Your task to perform on an android device: turn on showing notifications on the lock screen Image 0: 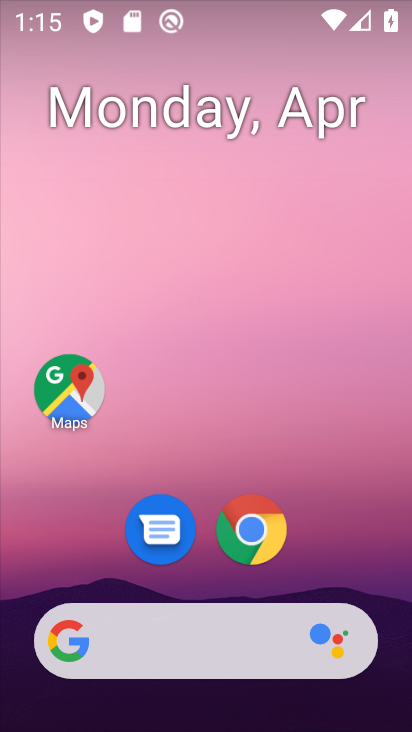
Step 0: drag from (317, 531) to (310, 152)
Your task to perform on an android device: turn on showing notifications on the lock screen Image 1: 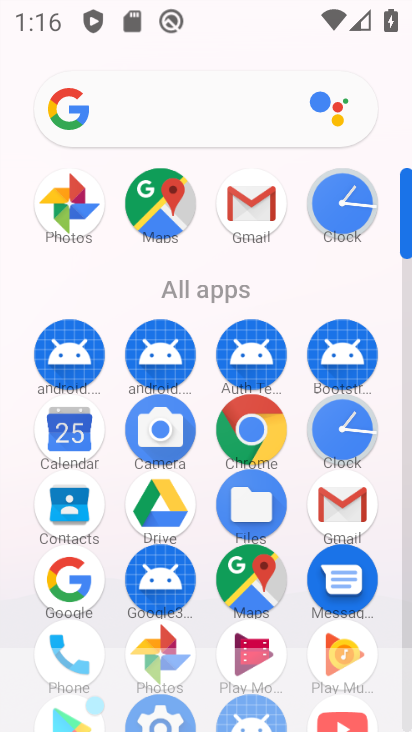
Step 1: drag from (208, 620) to (275, 161)
Your task to perform on an android device: turn on showing notifications on the lock screen Image 2: 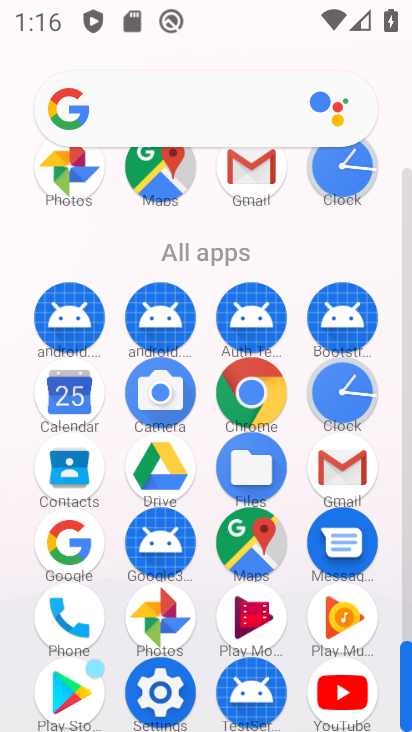
Step 2: click (163, 685)
Your task to perform on an android device: turn on showing notifications on the lock screen Image 3: 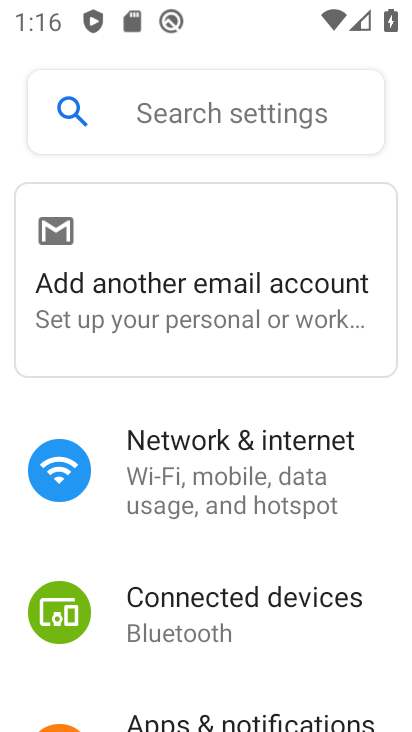
Step 3: drag from (224, 640) to (260, 391)
Your task to perform on an android device: turn on showing notifications on the lock screen Image 4: 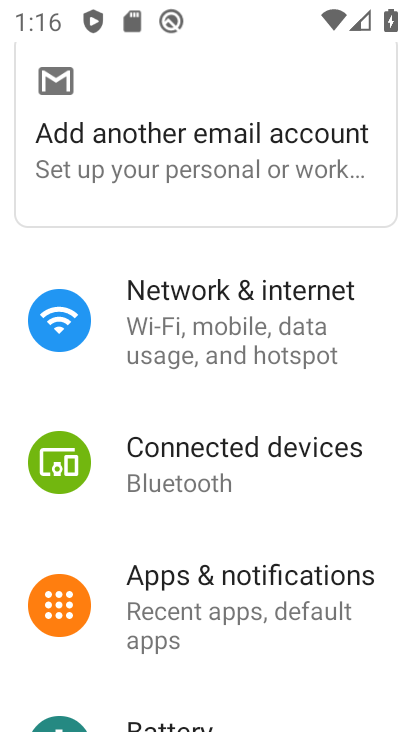
Step 4: click (172, 603)
Your task to perform on an android device: turn on showing notifications on the lock screen Image 5: 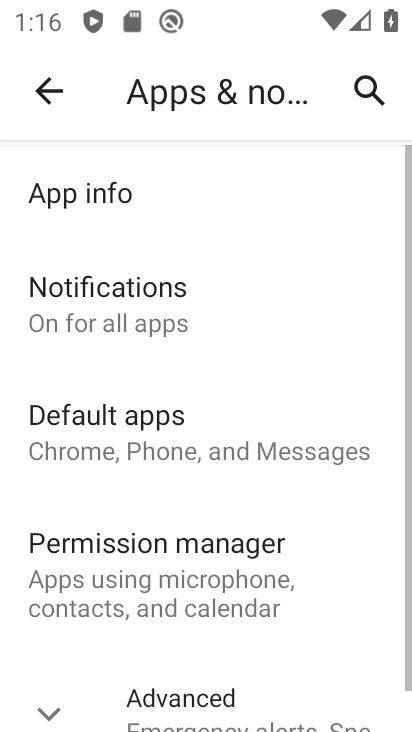
Step 5: drag from (206, 602) to (263, 332)
Your task to perform on an android device: turn on showing notifications on the lock screen Image 6: 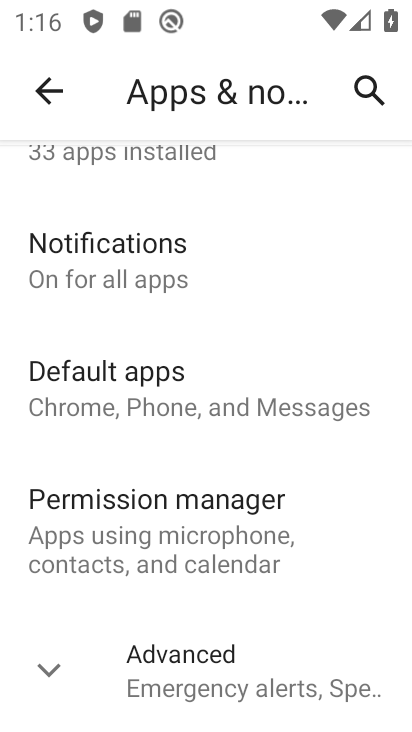
Step 6: drag from (183, 273) to (175, 500)
Your task to perform on an android device: turn on showing notifications on the lock screen Image 7: 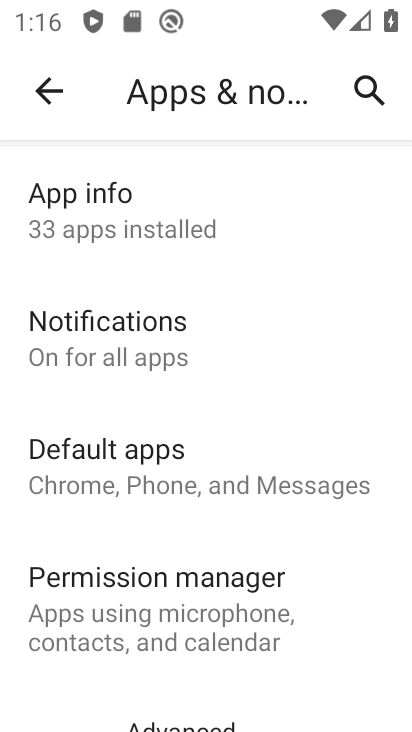
Step 7: click (127, 342)
Your task to perform on an android device: turn on showing notifications on the lock screen Image 8: 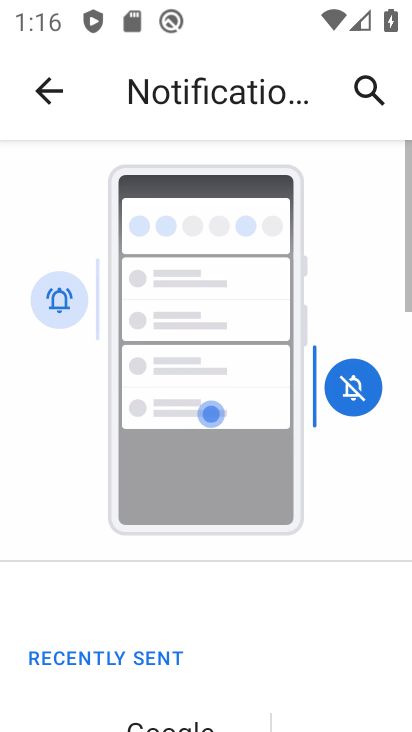
Step 8: drag from (198, 588) to (287, 109)
Your task to perform on an android device: turn on showing notifications on the lock screen Image 9: 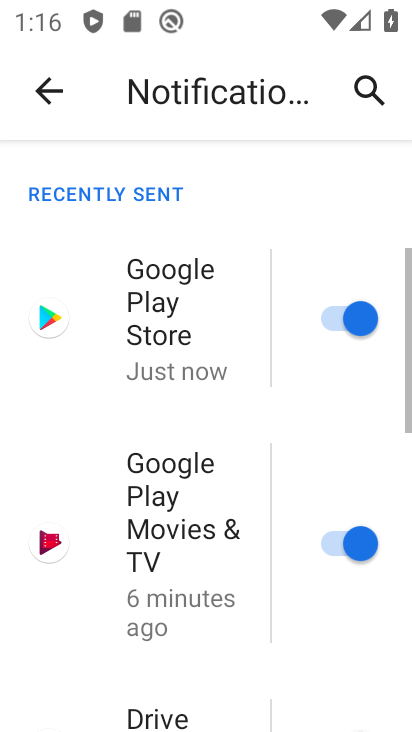
Step 9: drag from (138, 661) to (246, 207)
Your task to perform on an android device: turn on showing notifications on the lock screen Image 10: 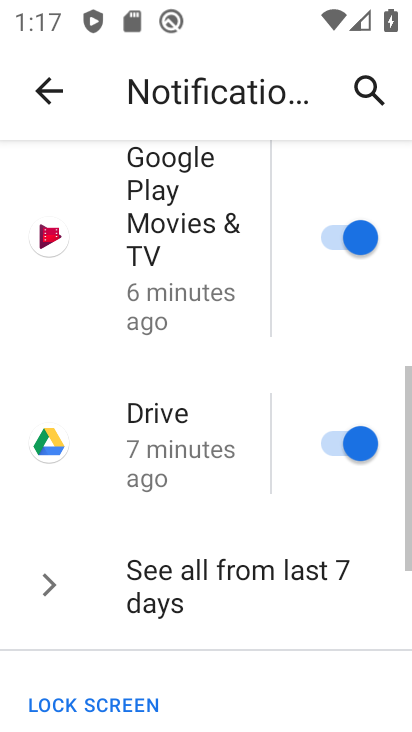
Step 10: drag from (178, 557) to (226, 204)
Your task to perform on an android device: turn on showing notifications on the lock screen Image 11: 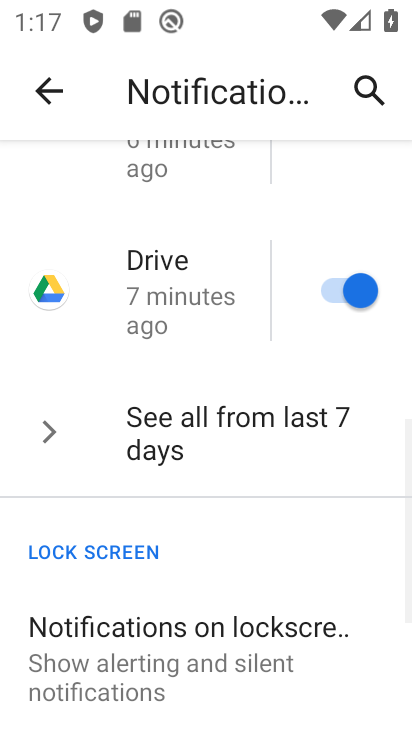
Step 11: click (117, 625)
Your task to perform on an android device: turn on showing notifications on the lock screen Image 12: 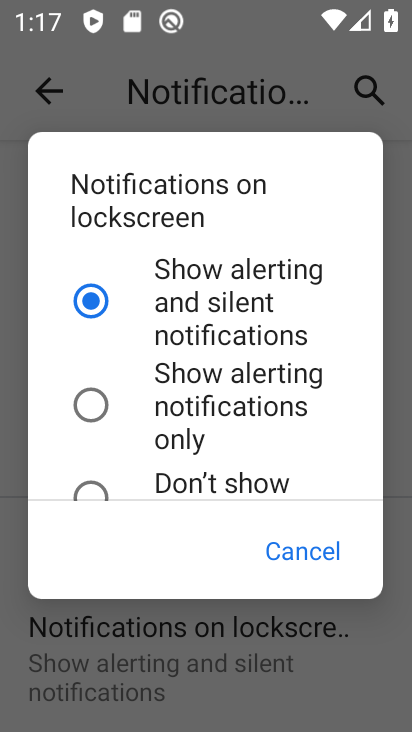
Step 12: drag from (231, 398) to (233, 250)
Your task to perform on an android device: turn on showing notifications on the lock screen Image 13: 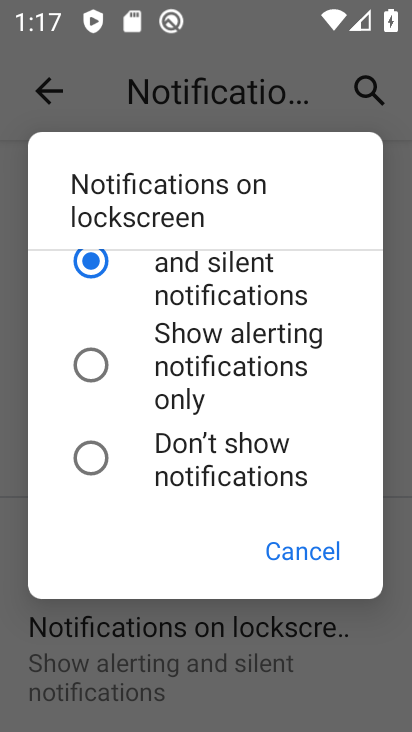
Step 13: click (188, 351)
Your task to perform on an android device: turn on showing notifications on the lock screen Image 14: 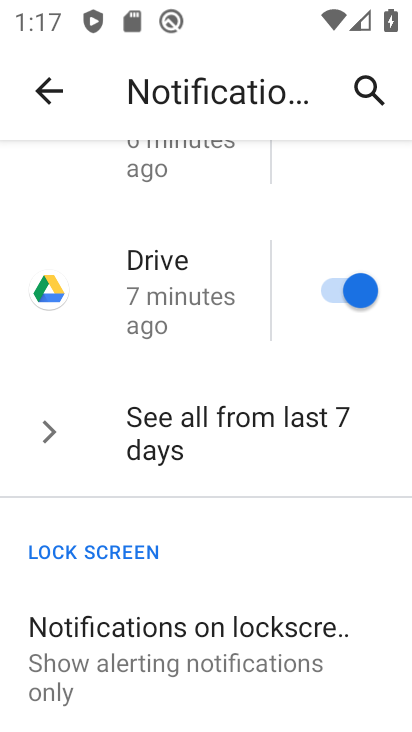
Step 14: task complete